Your task to perform on an android device: Go to CNN.com Image 0: 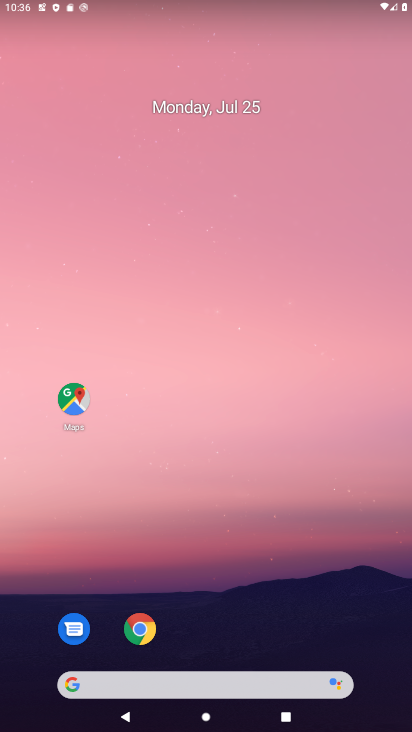
Step 0: click (144, 629)
Your task to perform on an android device: Go to CNN.com Image 1: 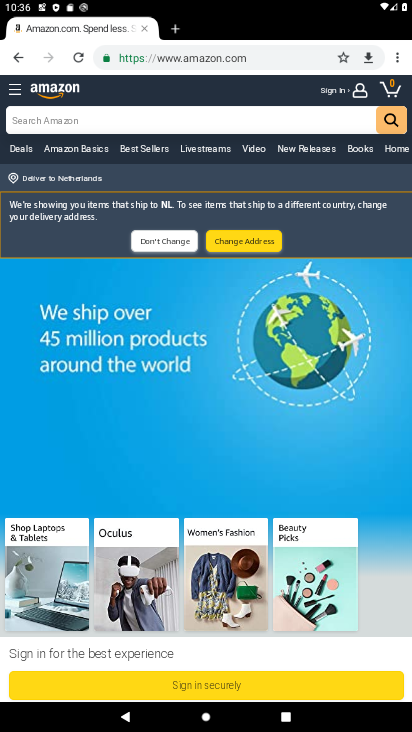
Step 1: click (184, 61)
Your task to perform on an android device: Go to CNN.com Image 2: 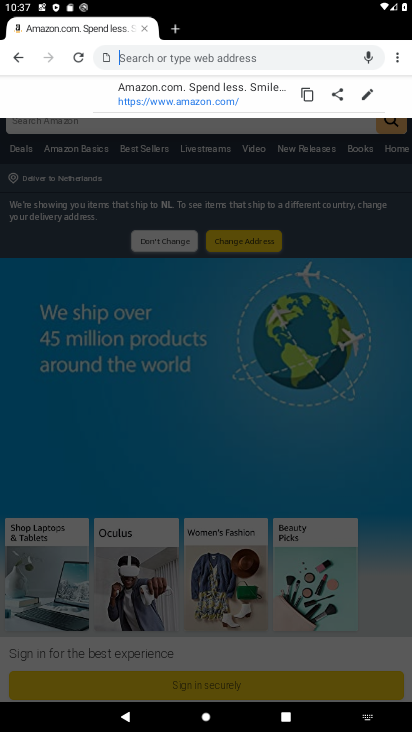
Step 2: type "cnn.com"
Your task to perform on an android device: Go to CNN.com Image 3: 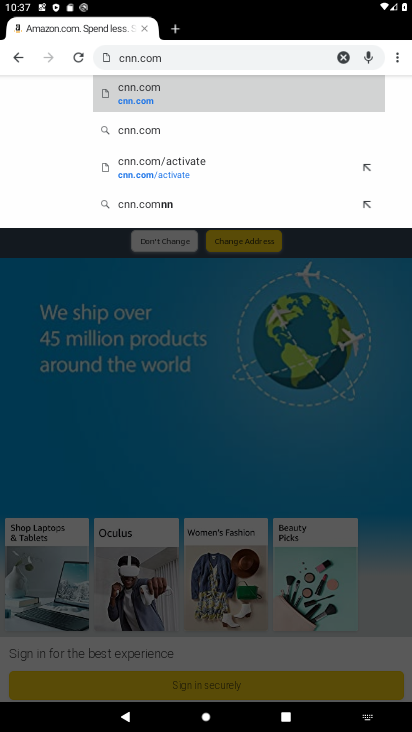
Step 3: click (149, 98)
Your task to perform on an android device: Go to CNN.com Image 4: 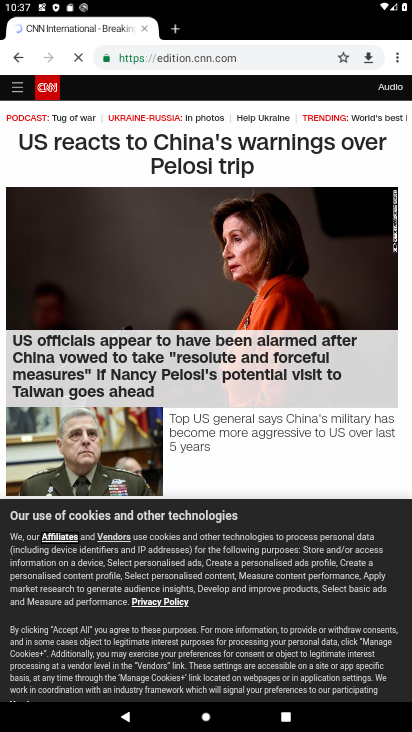
Step 4: task complete